Your task to perform on an android device: Open eBay Image 0: 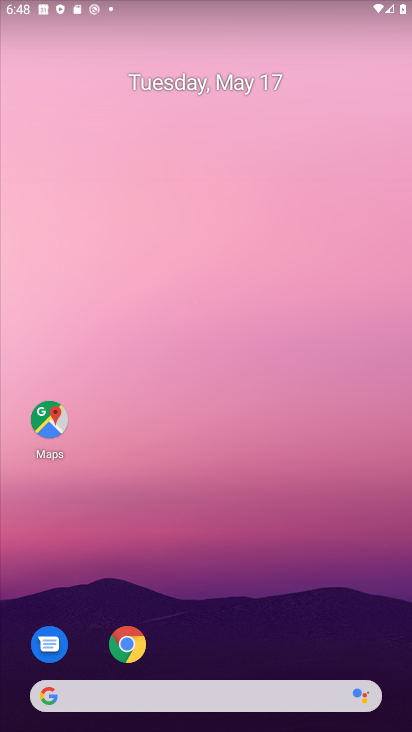
Step 0: drag from (354, 548) to (328, 120)
Your task to perform on an android device: Open eBay Image 1: 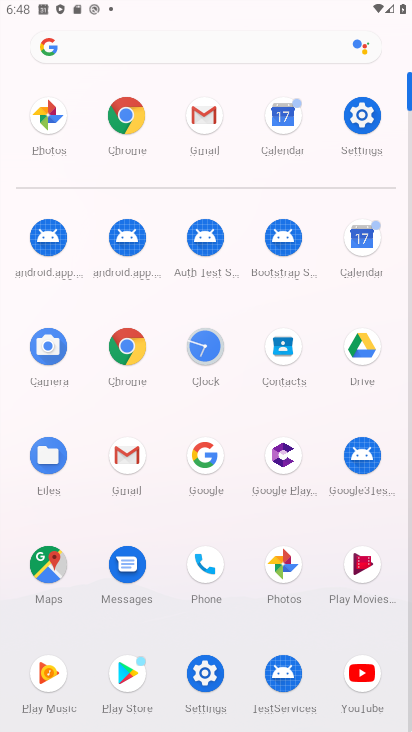
Step 1: click (197, 469)
Your task to perform on an android device: Open eBay Image 2: 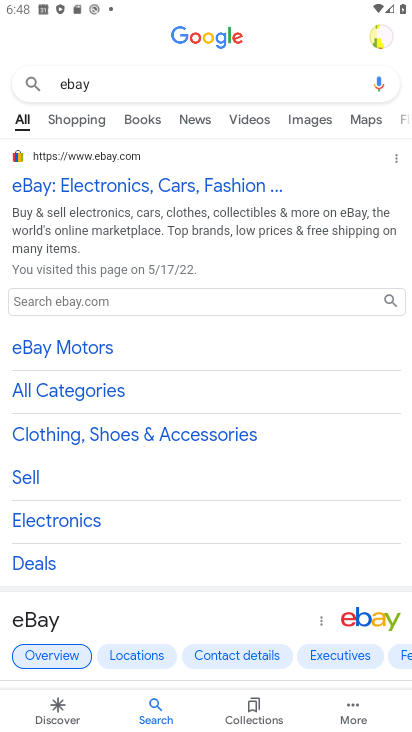
Step 2: task complete